Your task to perform on an android device: toggle notification dots Image 0: 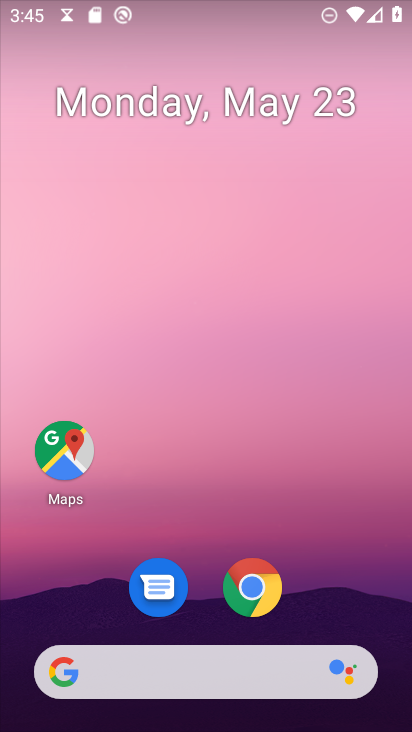
Step 0: drag from (209, 606) to (253, 0)
Your task to perform on an android device: toggle notification dots Image 1: 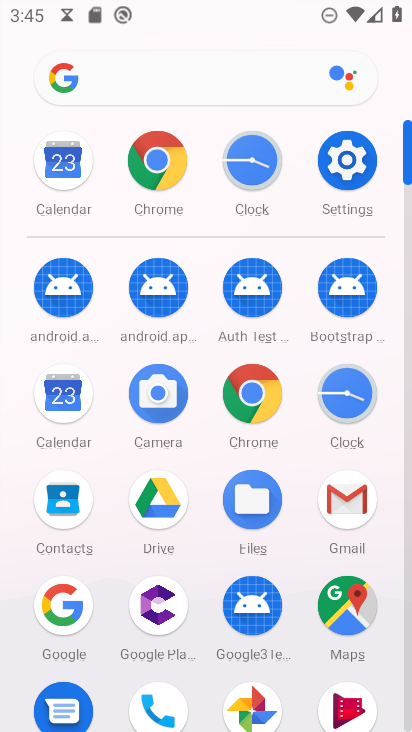
Step 1: click (353, 170)
Your task to perform on an android device: toggle notification dots Image 2: 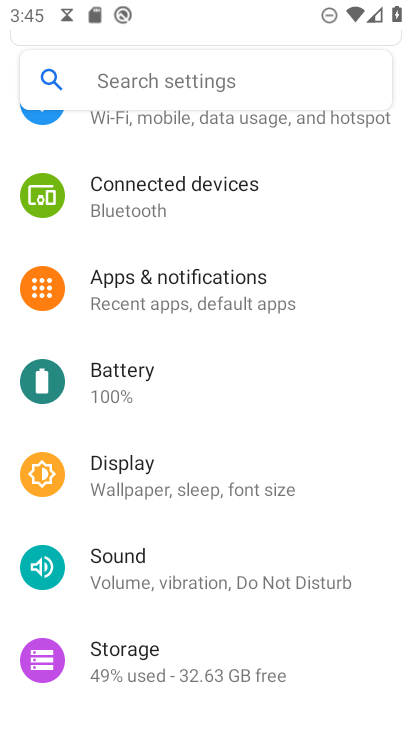
Step 2: click (235, 296)
Your task to perform on an android device: toggle notification dots Image 3: 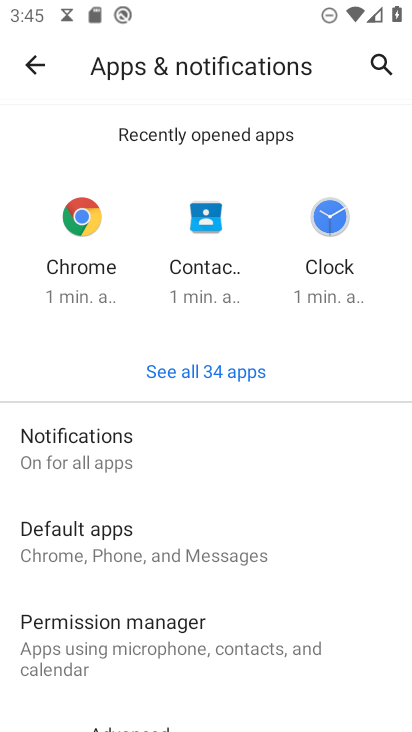
Step 3: click (144, 438)
Your task to perform on an android device: toggle notification dots Image 4: 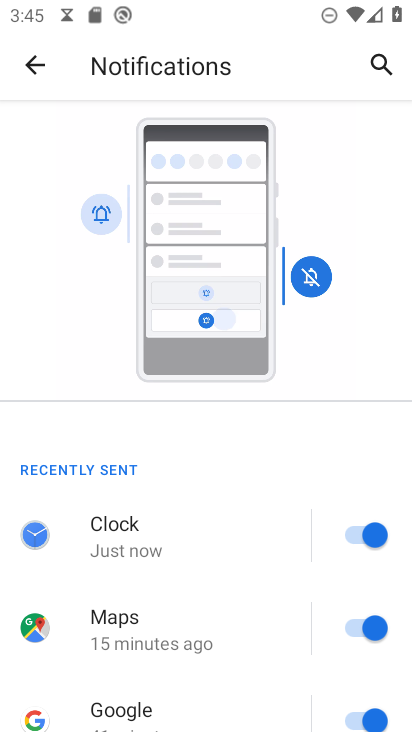
Step 4: drag from (165, 600) to (261, 186)
Your task to perform on an android device: toggle notification dots Image 5: 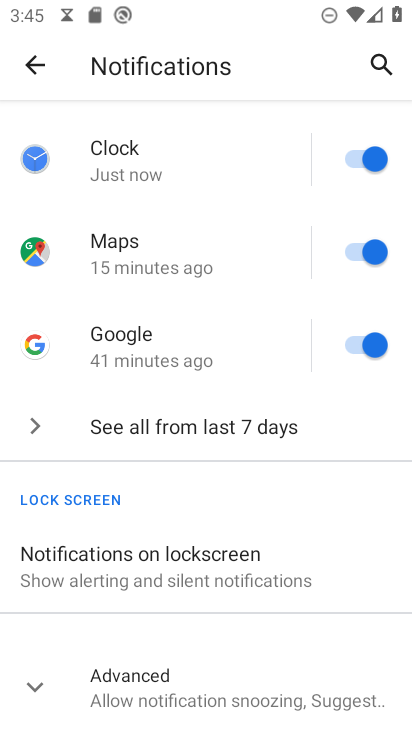
Step 5: drag from (217, 628) to (263, 331)
Your task to perform on an android device: toggle notification dots Image 6: 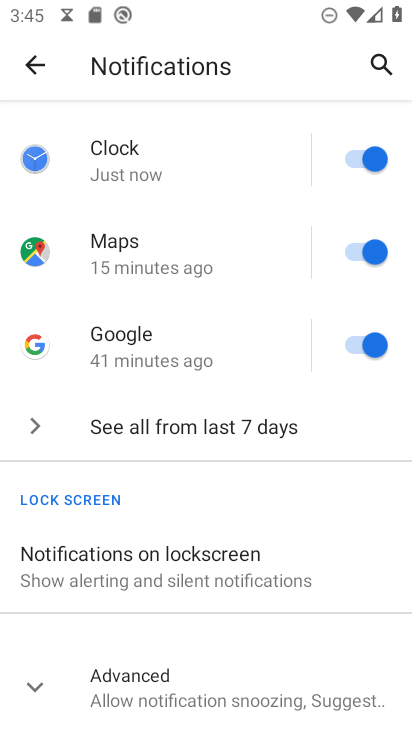
Step 6: drag from (198, 580) to (244, 303)
Your task to perform on an android device: toggle notification dots Image 7: 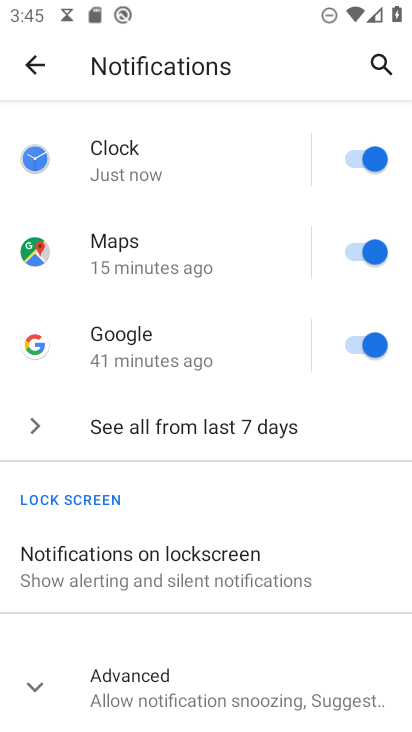
Step 7: click (151, 695)
Your task to perform on an android device: toggle notification dots Image 8: 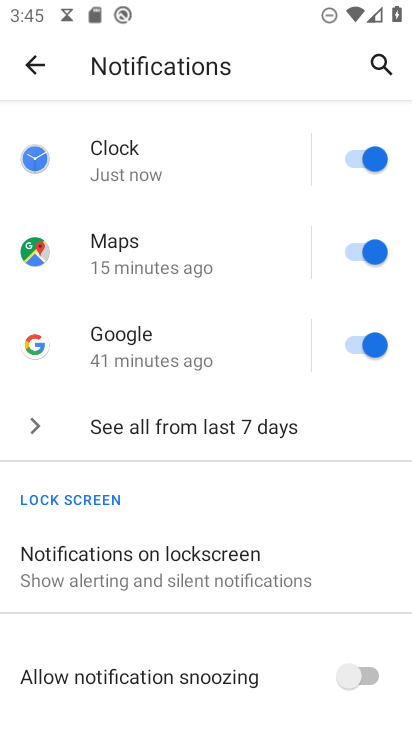
Step 8: drag from (174, 671) to (249, 176)
Your task to perform on an android device: toggle notification dots Image 9: 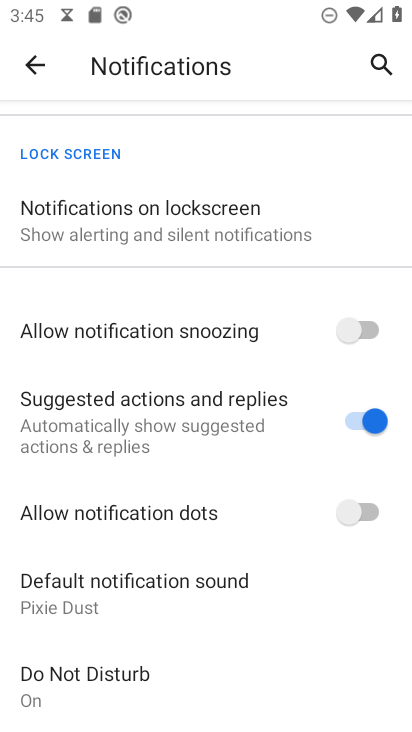
Step 9: click (369, 511)
Your task to perform on an android device: toggle notification dots Image 10: 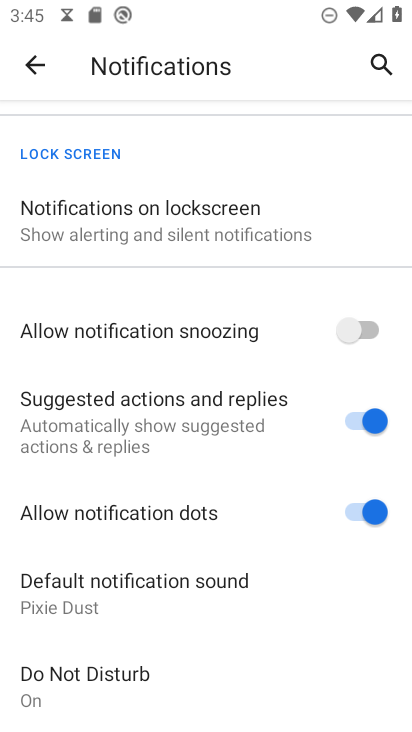
Step 10: task complete